Your task to perform on an android device: Open Android settings Image 0: 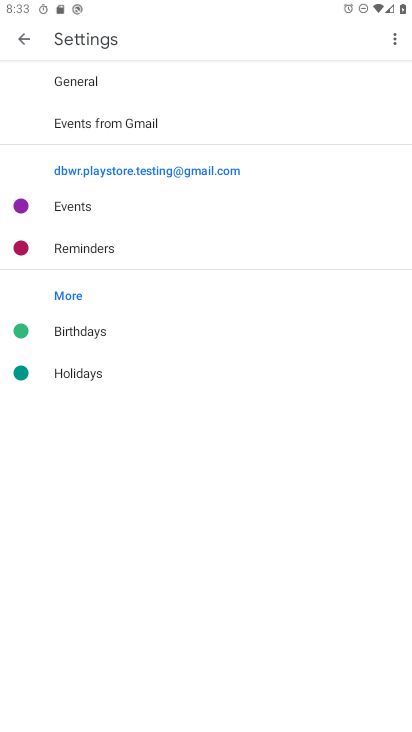
Step 0: press home button
Your task to perform on an android device: Open Android settings Image 1: 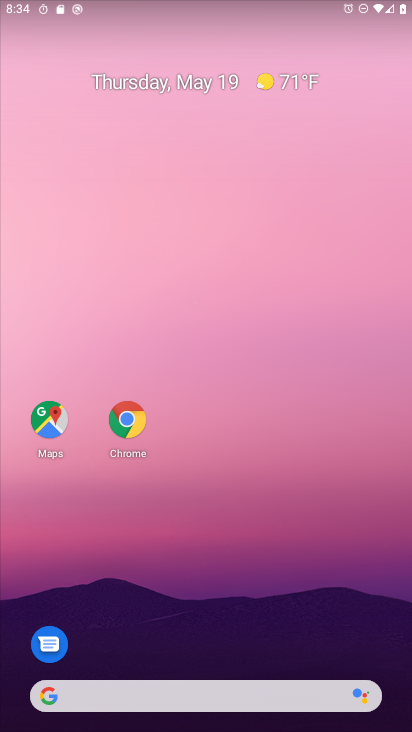
Step 1: drag from (184, 671) to (302, 272)
Your task to perform on an android device: Open Android settings Image 2: 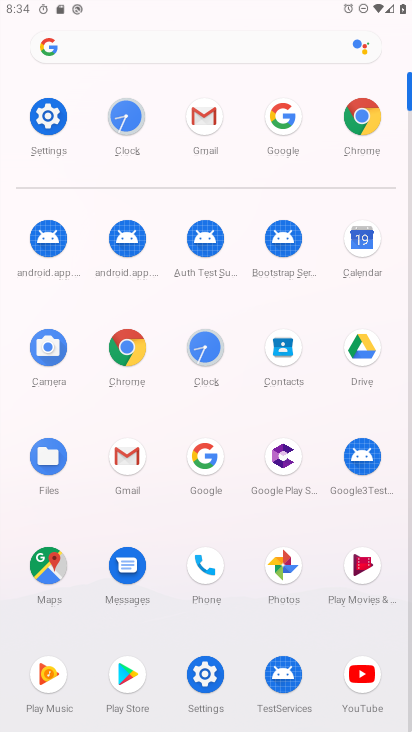
Step 2: click (206, 669)
Your task to perform on an android device: Open Android settings Image 3: 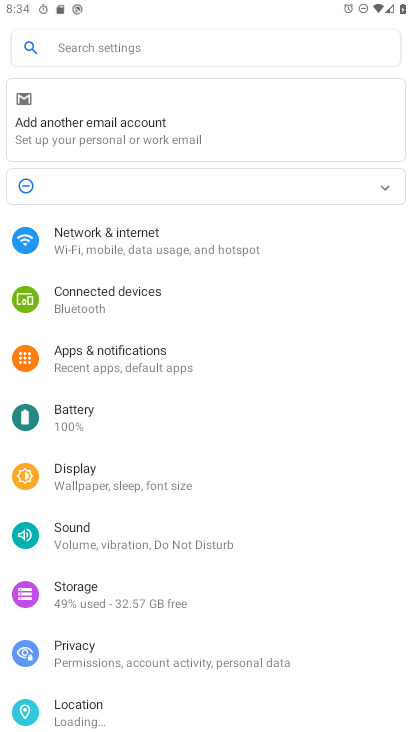
Step 3: task complete